Your task to perform on an android device: open app "Messenger Lite" (install if not already installed) and go to login screen Image 0: 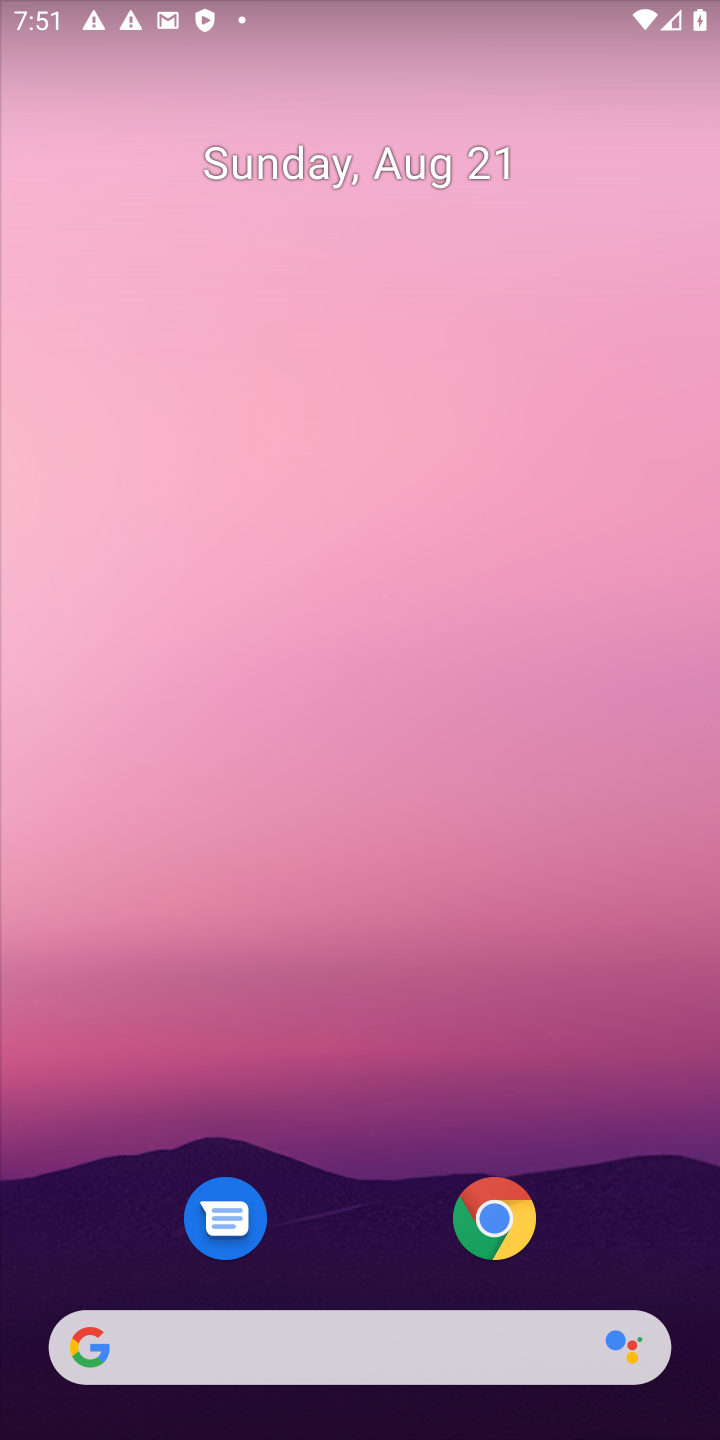
Step 0: drag from (418, 1261) to (524, 243)
Your task to perform on an android device: open app "Messenger Lite" (install if not already installed) and go to login screen Image 1: 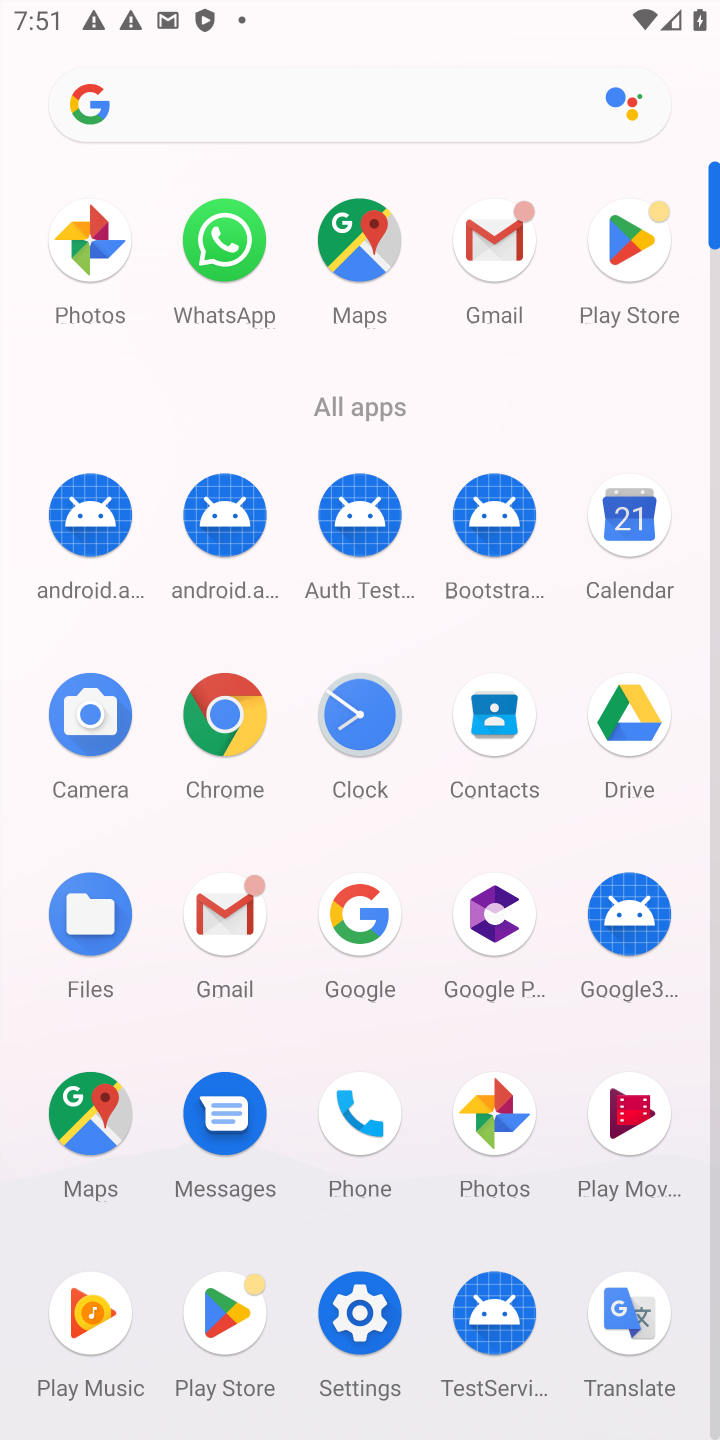
Step 1: click (610, 278)
Your task to perform on an android device: open app "Messenger Lite" (install if not already installed) and go to login screen Image 2: 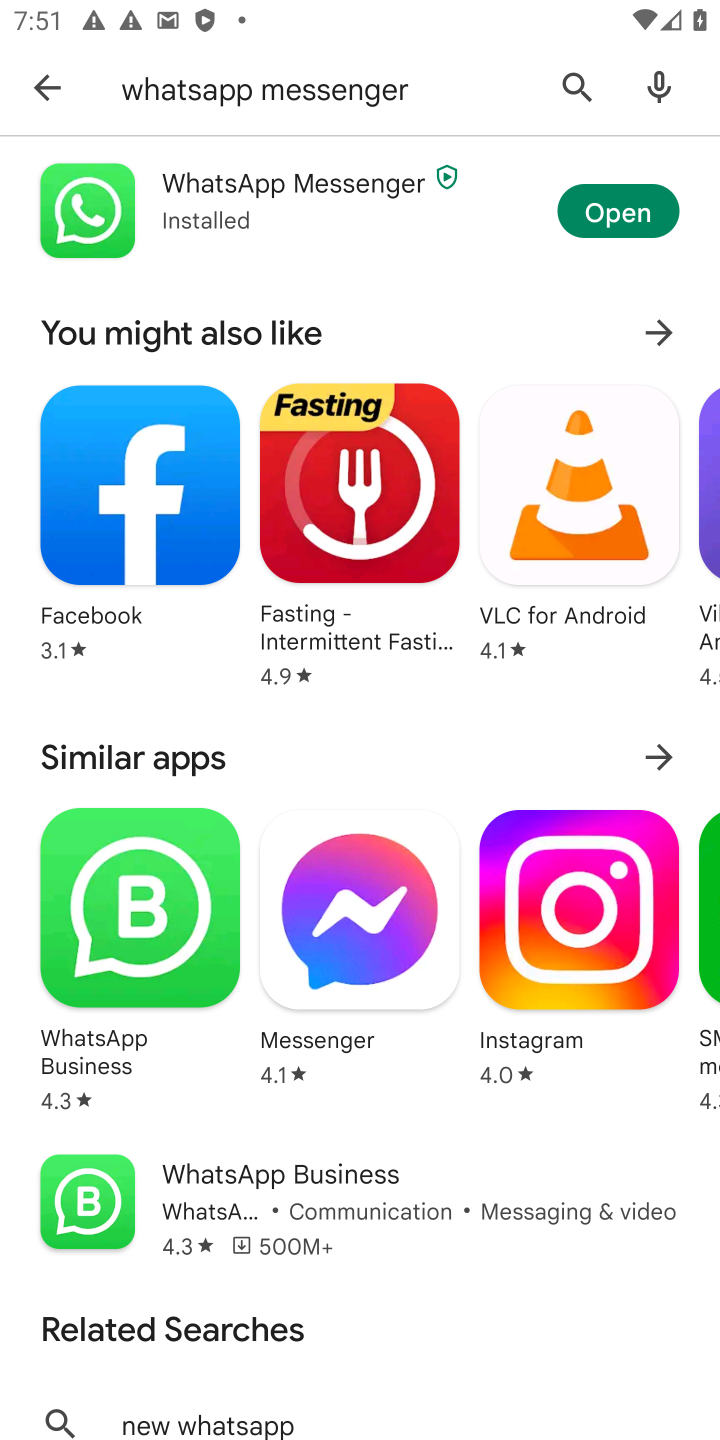
Step 2: click (36, 74)
Your task to perform on an android device: open app "Messenger Lite" (install if not already installed) and go to login screen Image 3: 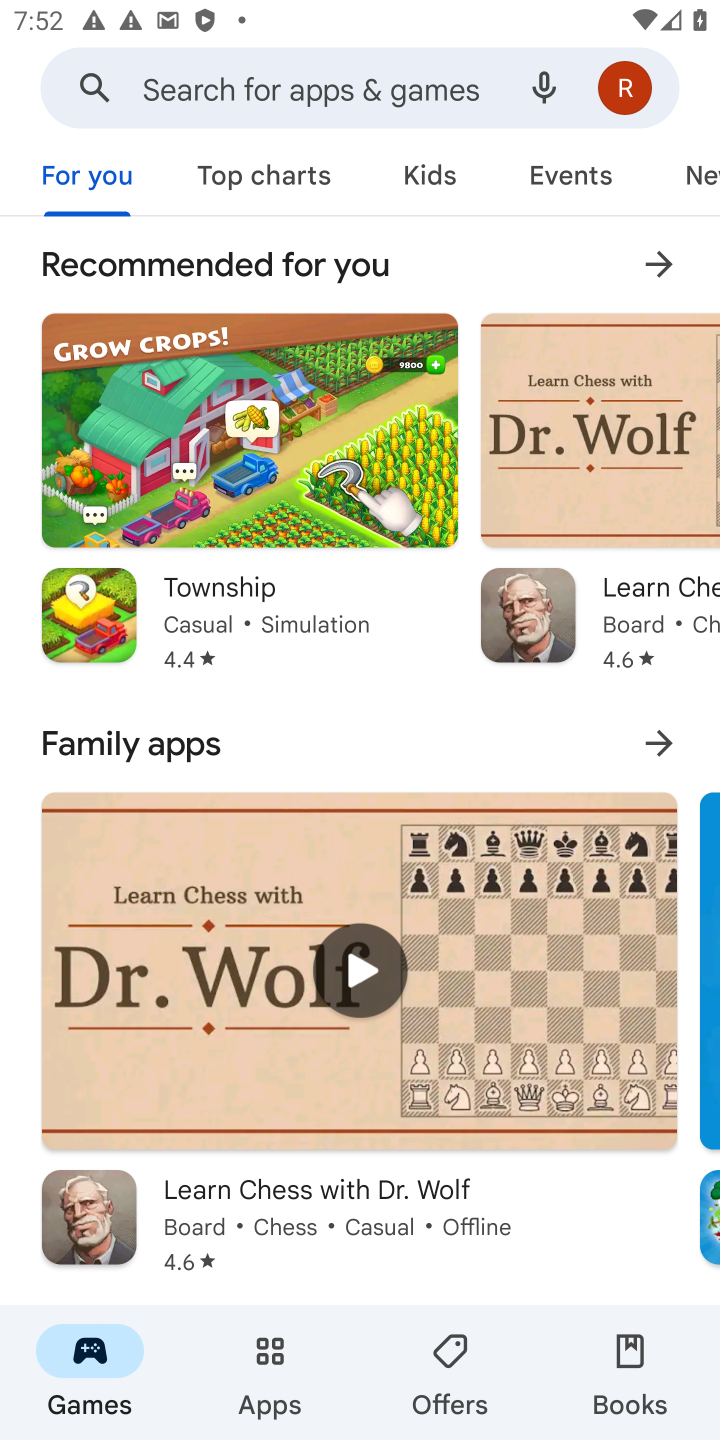
Step 3: click (338, 84)
Your task to perform on an android device: open app "Messenger Lite" (install if not already installed) and go to login screen Image 4: 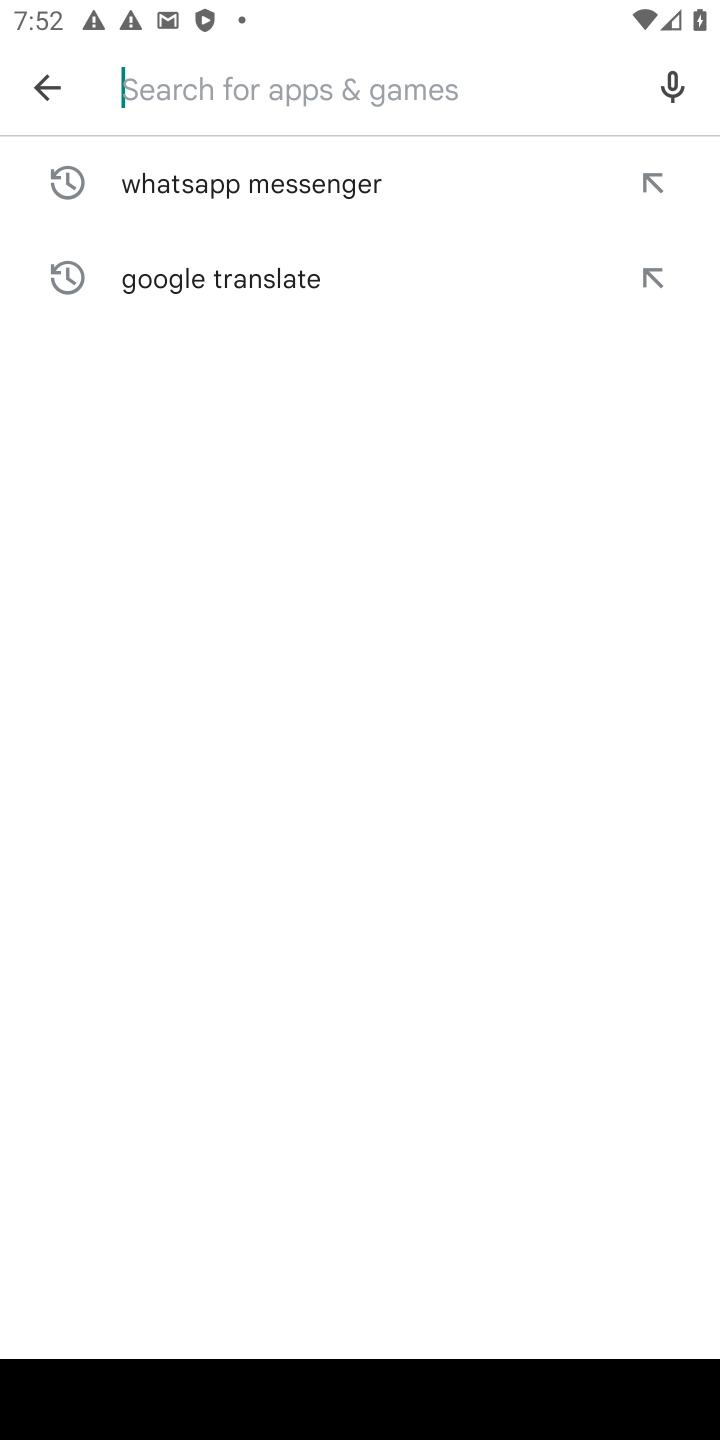
Step 4: type "Messenger Lite"
Your task to perform on an android device: open app "Messenger Lite" (install if not already installed) and go to login screen Image 5: 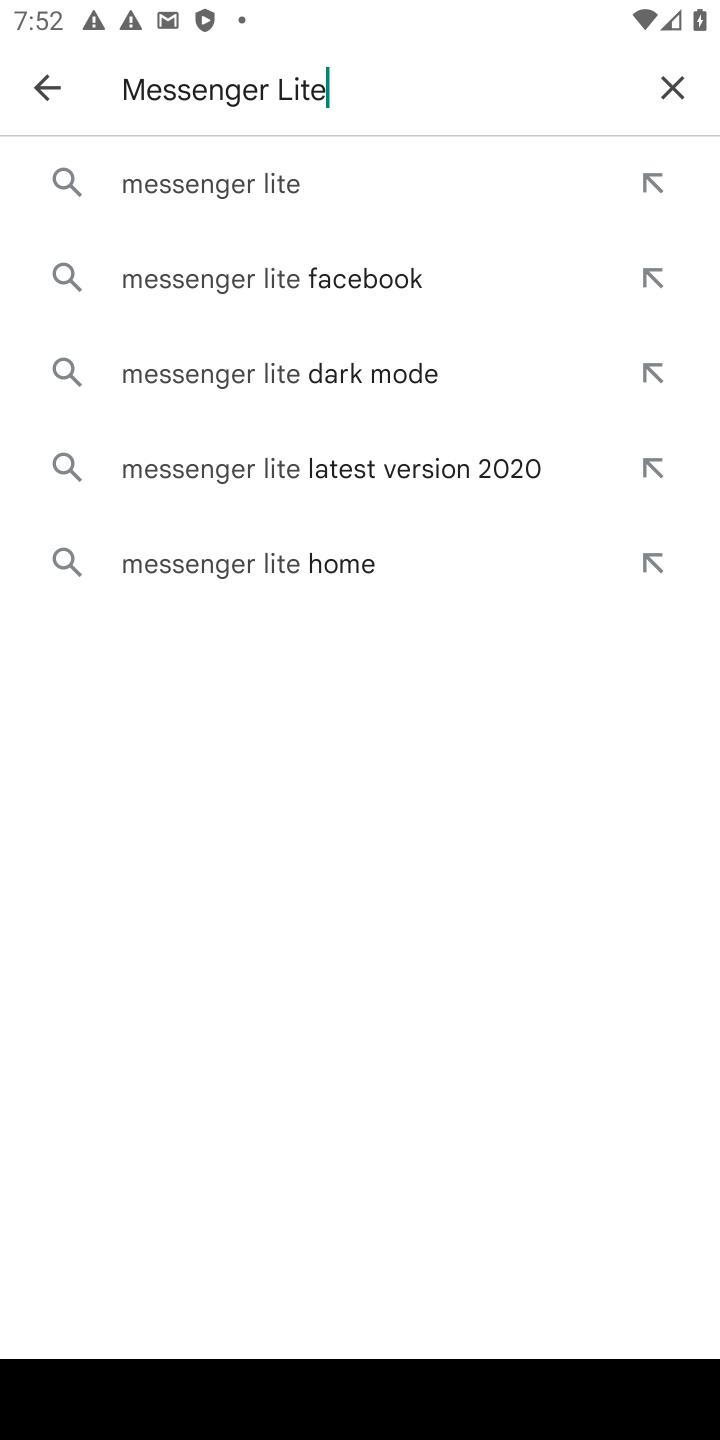
Step 5: click (260, 190)
Your task to perform on an android device: open app "Messenger Lite" (install if not already installed) and go to login screen Image 6: 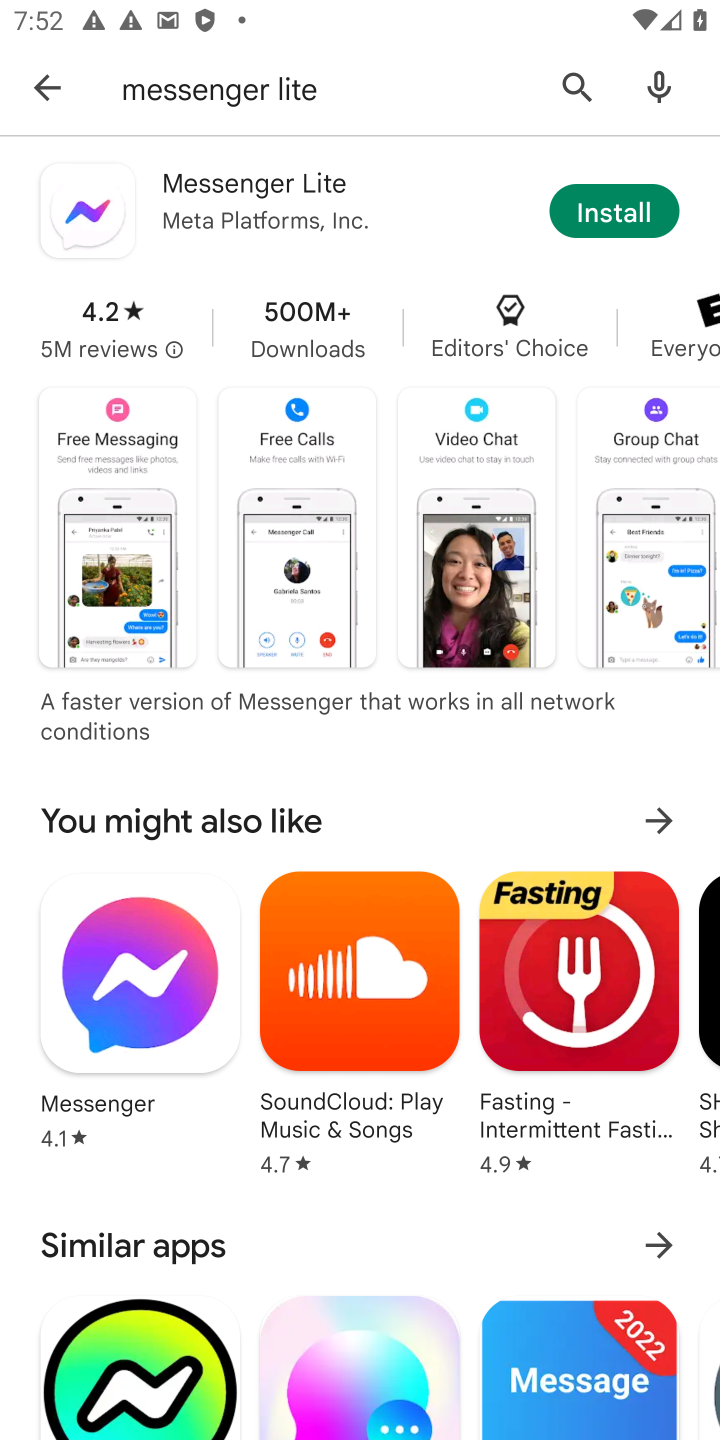
Step 6: click (631, 203)
Your task to perform on an android device: open app "Messenger Lite" (install if not already installed) and go to login screen Image 7: 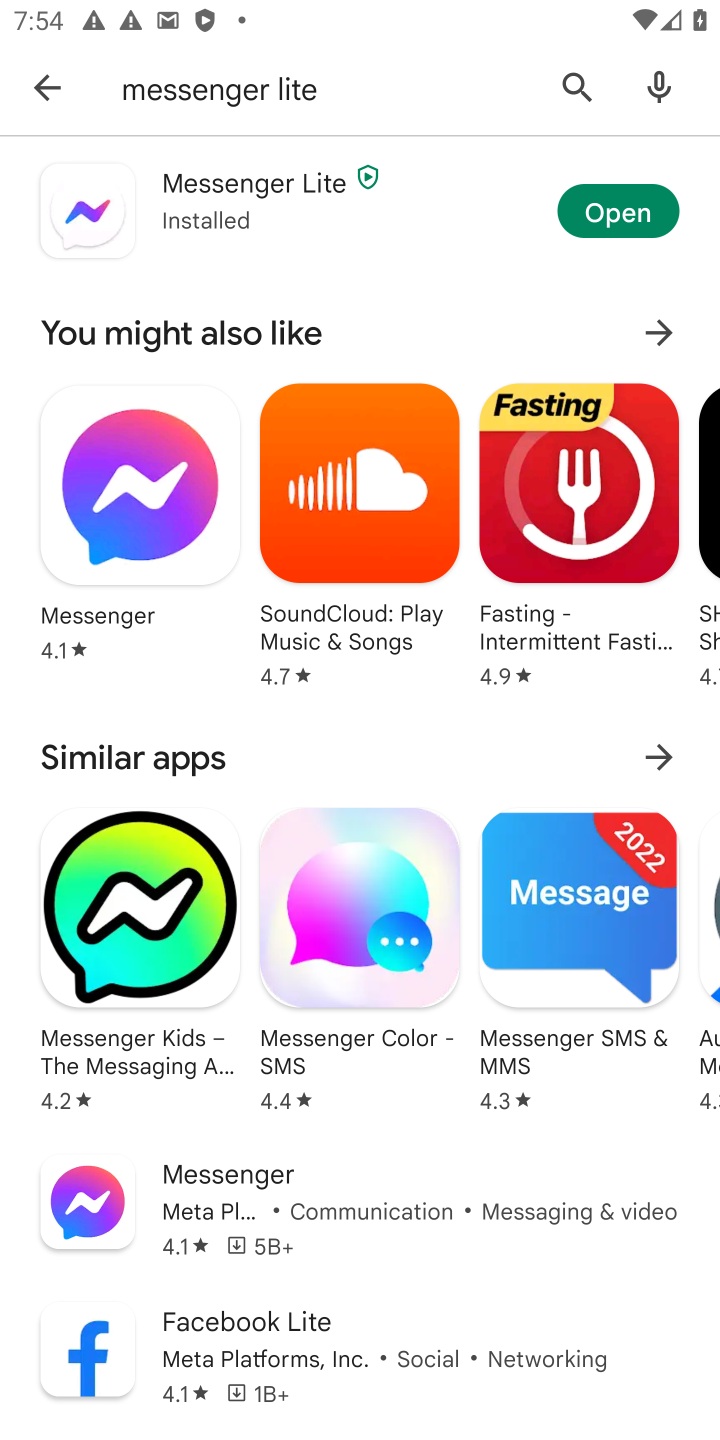
Step 7: click (629, 205)
Your task to perform on an android device: open app "Messenger Lite" (install if not already installed) and go to login screen Image 8: 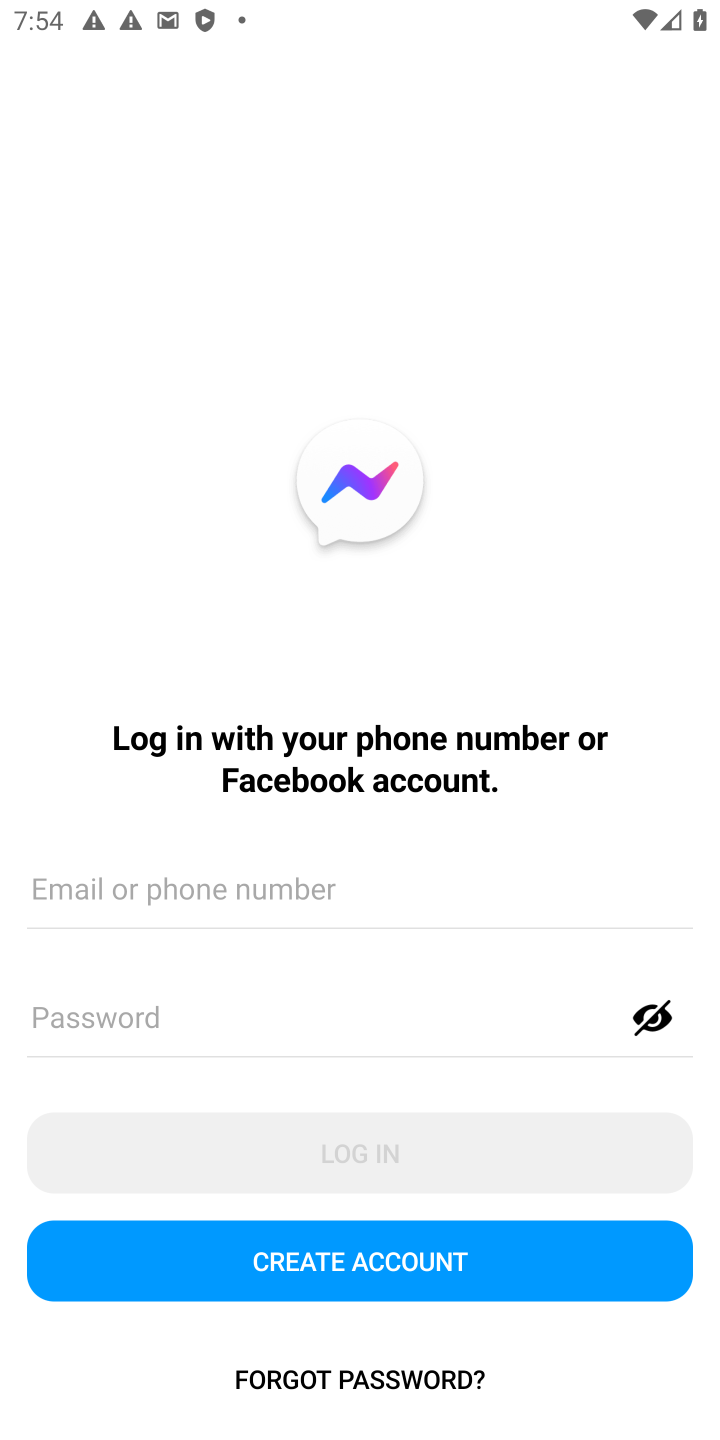
Step 8: task complete